Your task to perform on an android device: toggle notifications settings in the gmail app Image 0: 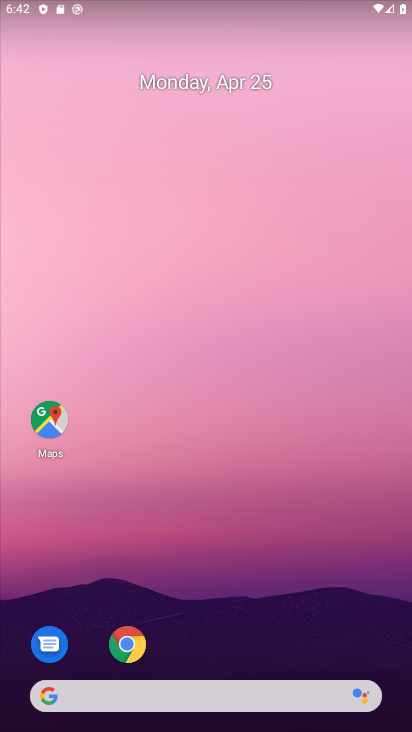
Step 0: drag from (288, 620) to (317, 140)
Your task to perform on an android device: toggle notifications settings in the gmail app Image 1: 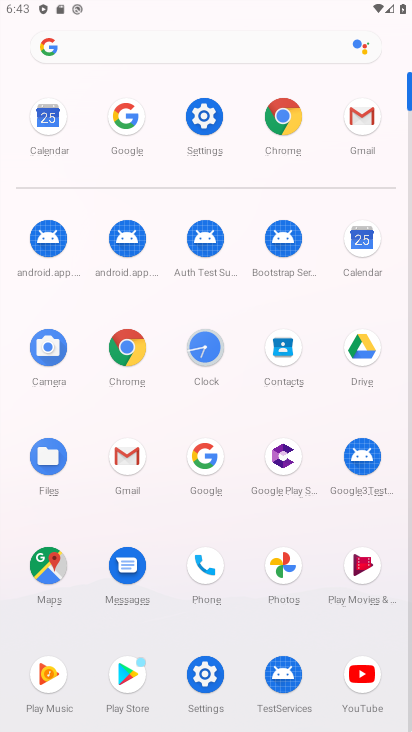
Step 1: click (127, 461)
Your task to perform on an android device: toggle notifications settings in the gmail app Image 2: 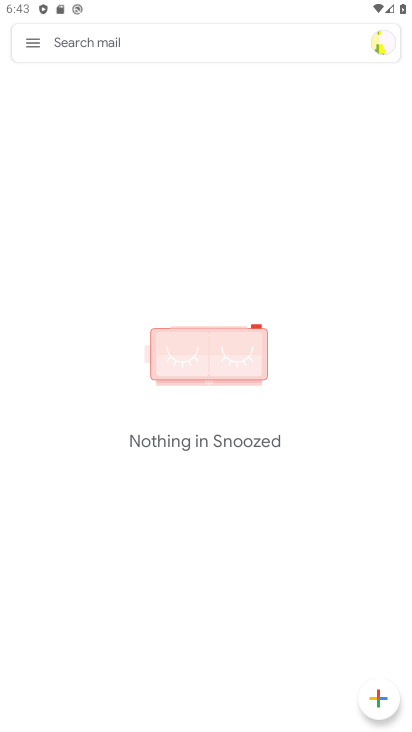
Step 2: click (36, 43)
Your task to perform on an android device: toggle notifications settings in the gmail app Image 3: 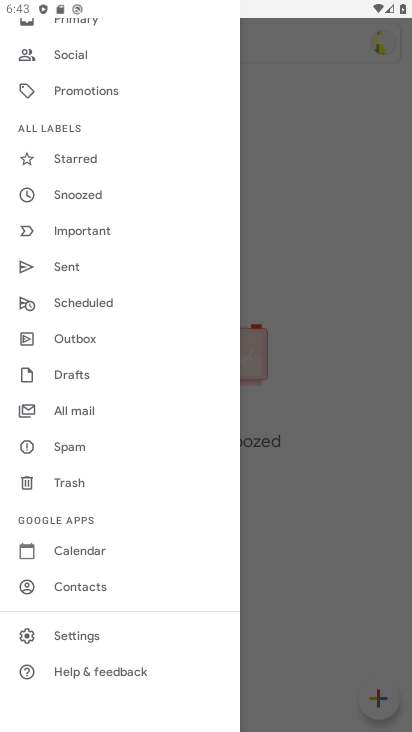
Step 3: click (98, 633)
Your task to perform on an android device: toggle notifications settings in the gmail app Image 4: 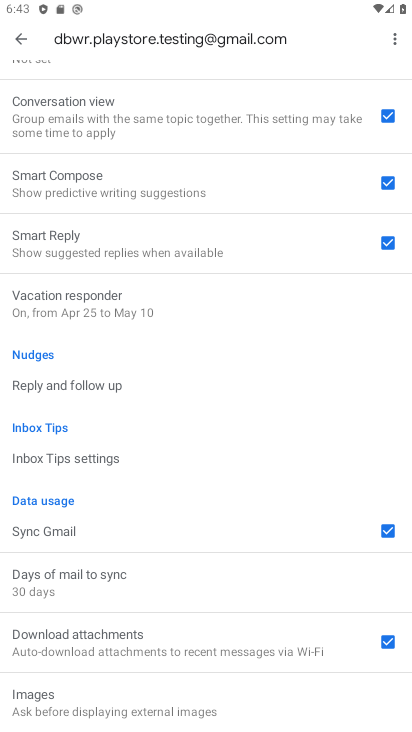
Step 4: drag from (200, 241) to (179, 577)
Your task to perform on an android device: toggle notifications settings in the gmail app Image 5: 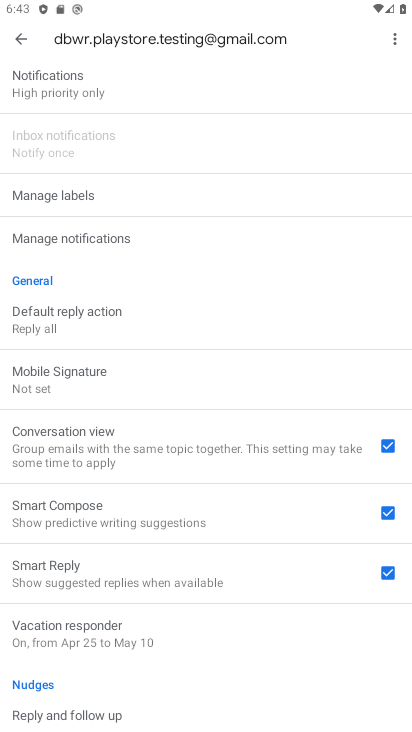
Step 5: click (100, 243)
Your task to perform on an android device: toggle notifications settings in the gmail app Image 6: 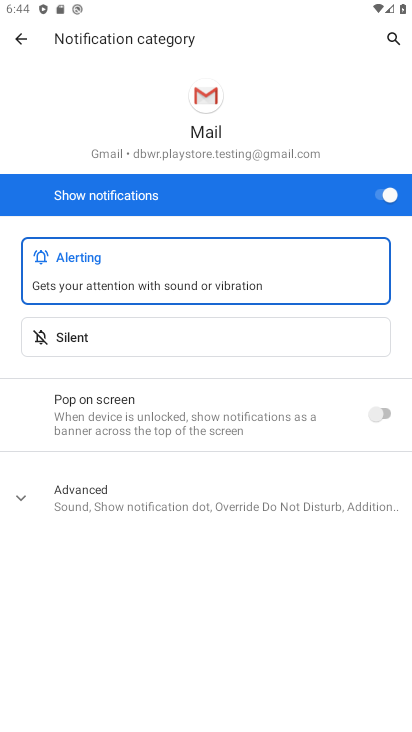
Step 6: click (377, 194)
Your task to perform on an android device: toggle notifications settings in the gmail app Image 7: 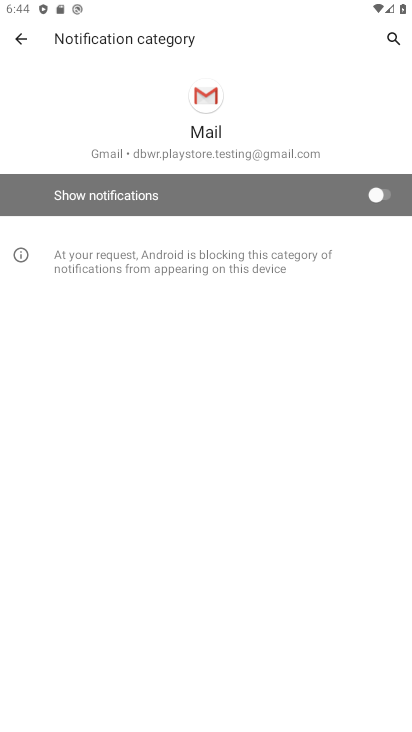
Step 7: task complete